Your task to perform on an android device: Search for pizza restaurants on Maps Image 0: 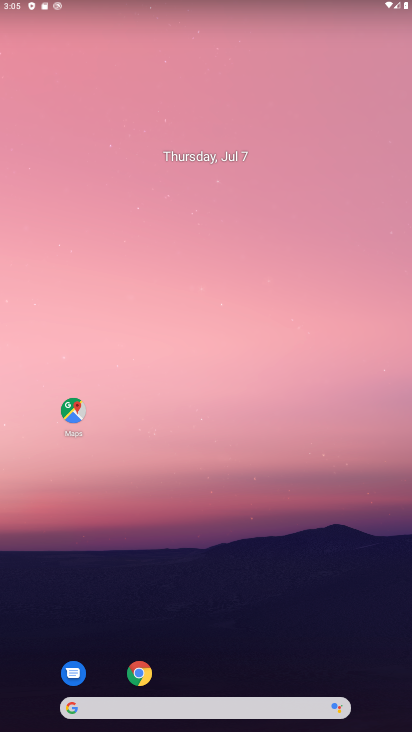
Step 0: drag from (199, 703) to (369, 124)
Your task to perform on an android device: Search for pizza restaurants on Maps Image 1: 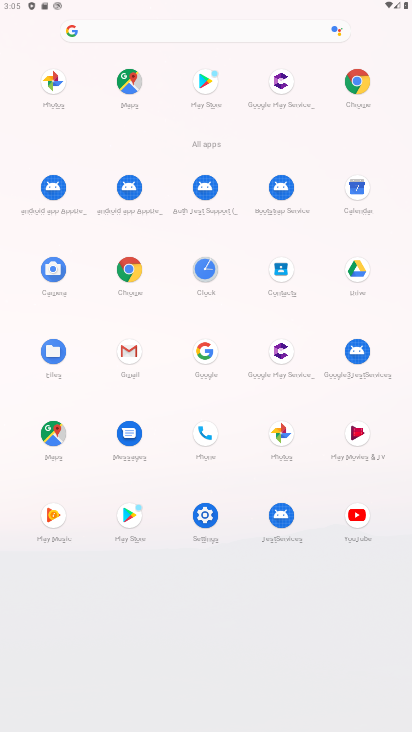
Step 1: click (58, 427)
Your task to perform on an android device: Search for pizza restaurants on Maps Image 2: 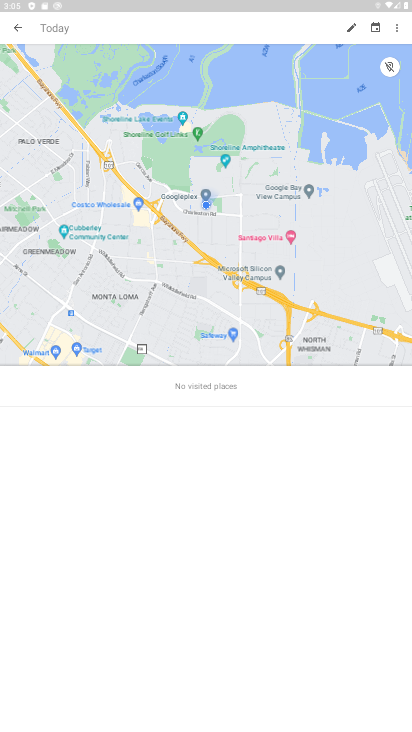
Step 2: press back button
Your task to perform on an android device: Search for pizza restaurants on Maps Image 3: 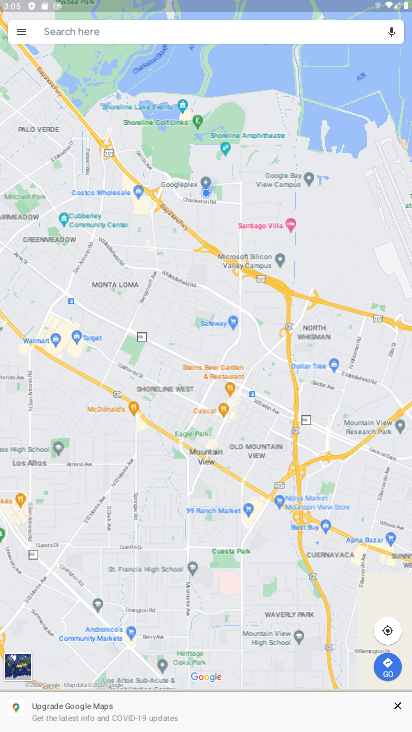
Step 3: click (136, 37)
Your task to perform on an android device: Search for pizza restaurants on Maps Image 4: 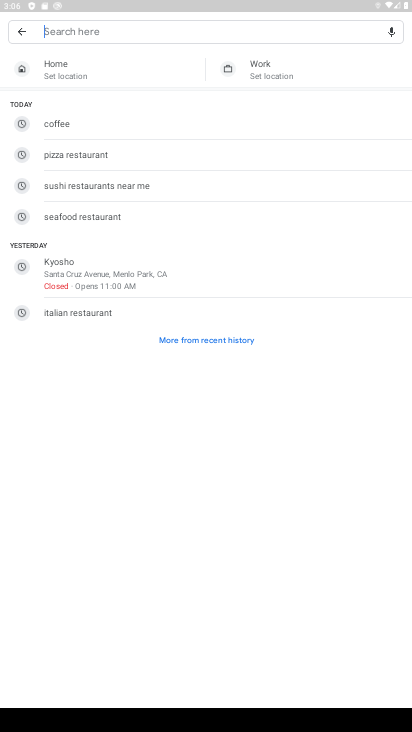
Step 4: type "Pizza restaurants"
Your task to perform on an android device: Search for pizza restaurants on Maps Image 5: 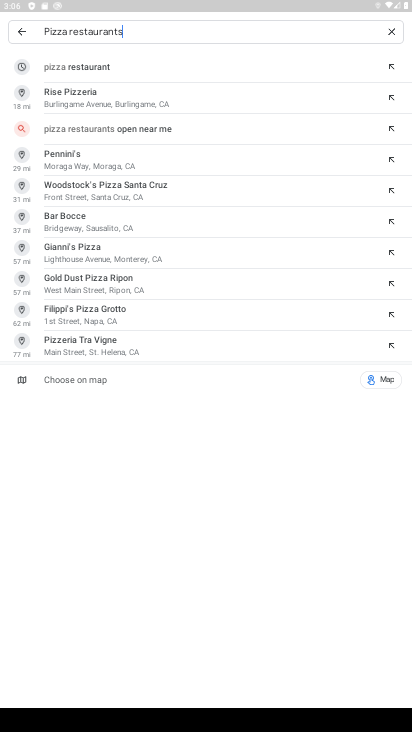
Step 5: click (129, 69)
Your task to perform on an android device: Search for pizza restaurants on Maps Image 6: 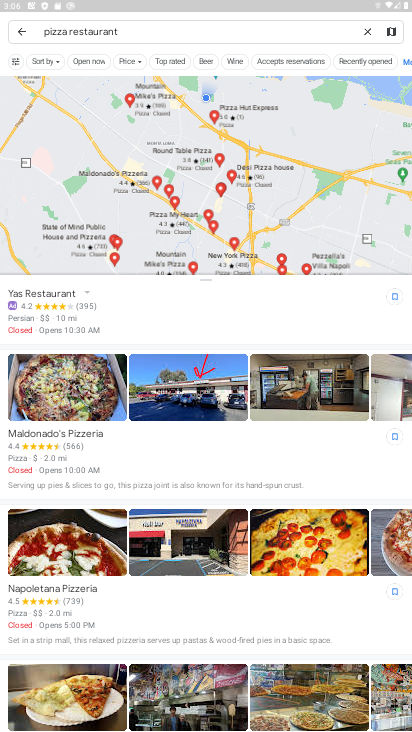
Step 6: task complete